Your task to perform on an android device: Go to network settings Image 0: 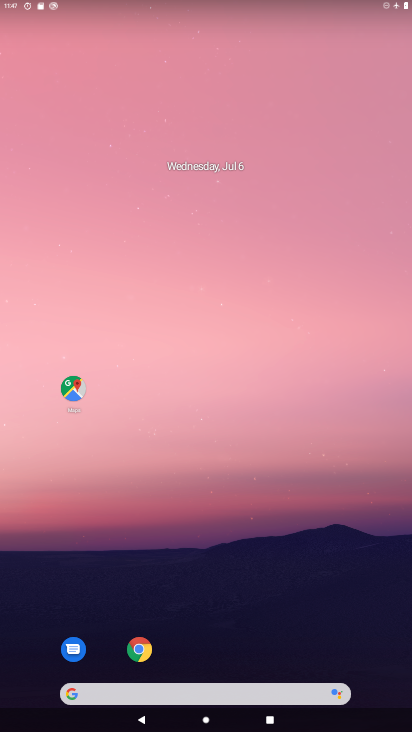
Step 0: drag from (394, 696) to (301, 143)
Your task to perform on an android device: Go to network settings Image 1: 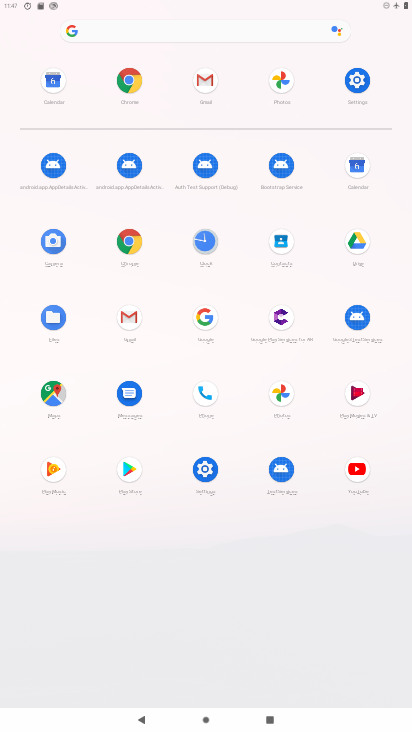
Step 1: click (352, 72)
Your task to perform on an android device: Go to network settings Image 2: 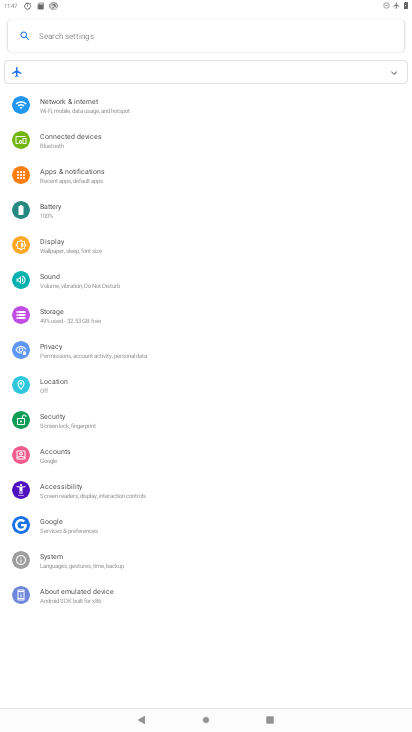
Step 2: click (64, 113)
Your task to perform on an android device: Go to network settings Image 3: 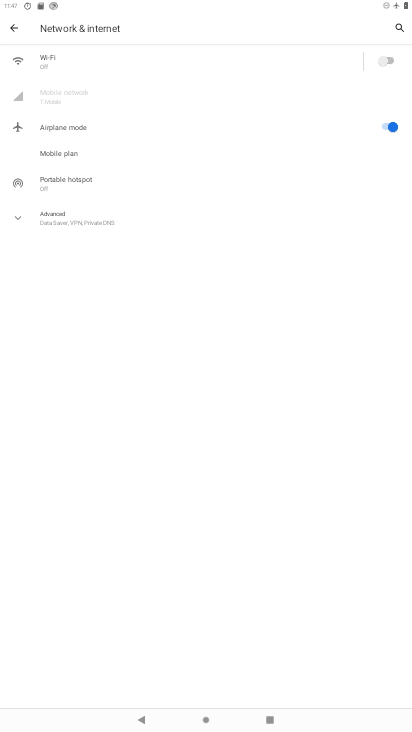
Step 3: task complete